Your task to perform on an android device: Go to settings Image 0: 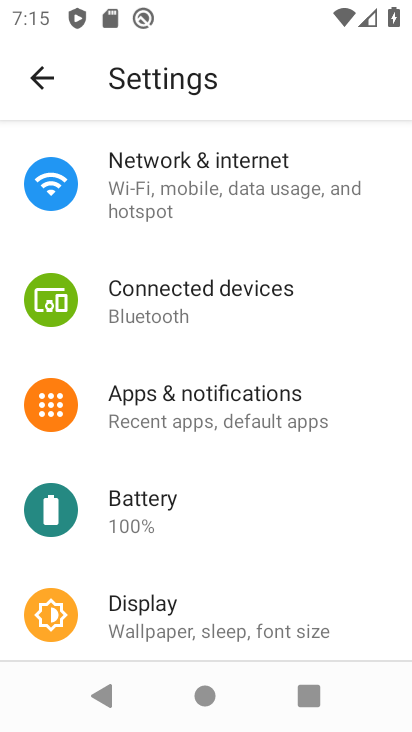
Step 0: press home button
Your task to perform on an android device: Go to settings Image 1: 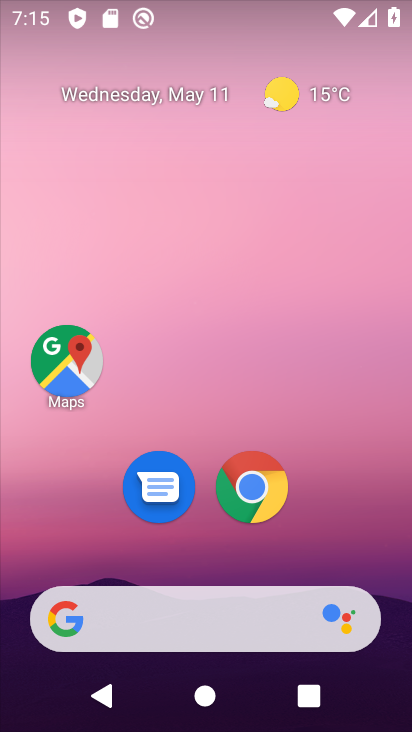
Step 1: drag from (327, 639) to (290, 259)
Your task to perform on an android device: Go to settings Image 2: 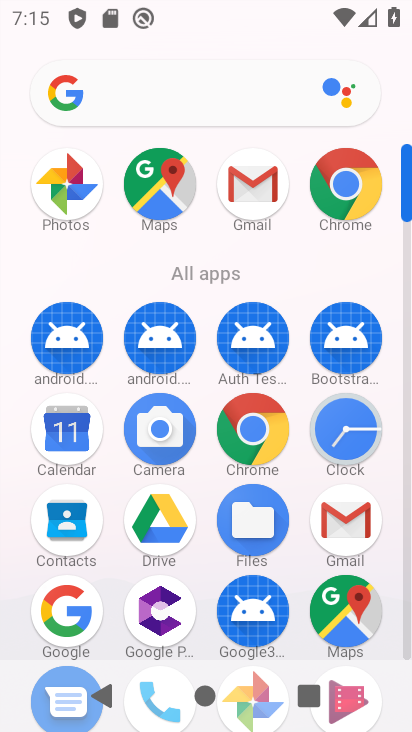
Step 2: drag from (210, 395) to (225, 256)
Your task to perform on an android device: Go to settings Image 3: 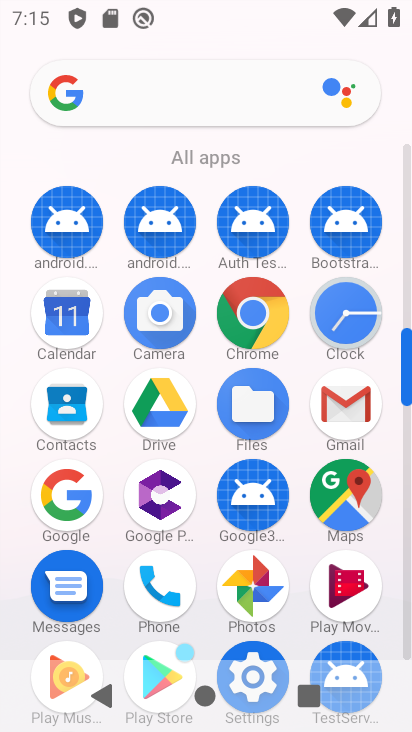
Step 3: drag from (214, 546) to (222, 471)
Your task to perform on an android device: Go to settings Image 4: 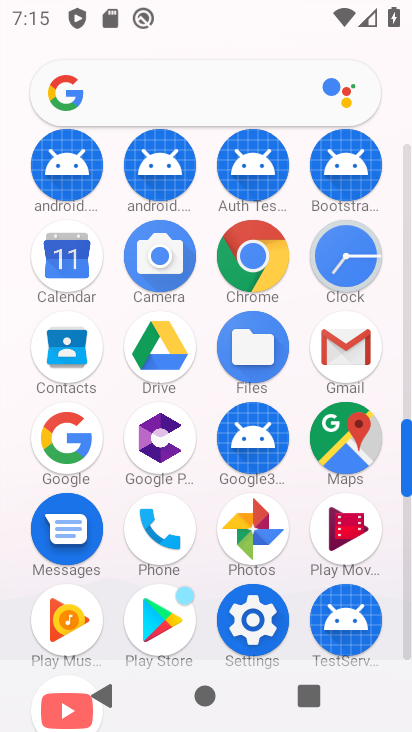
Step 4: click (261, 614)
Your task to perform on an android device: Go to settings Image 5: 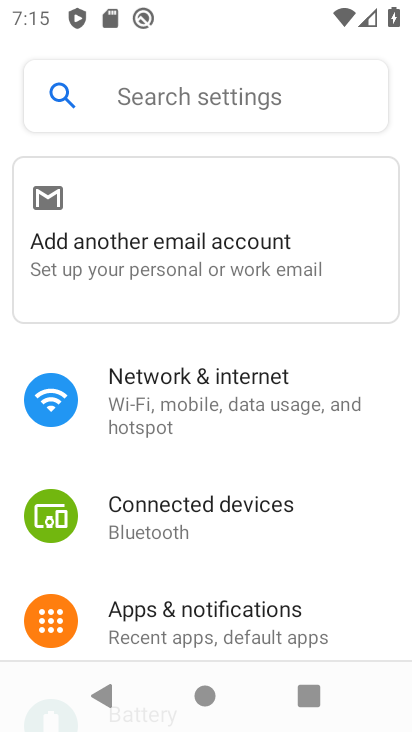
Step 5: task complete